Your task to perform on an android device: Go to network settings Image 0: 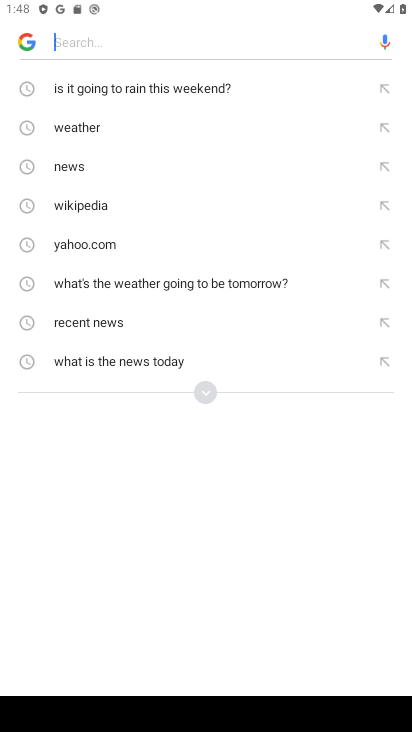
Step 0: press home button
Your task to perform on an android device: Go to network settings Image 1: 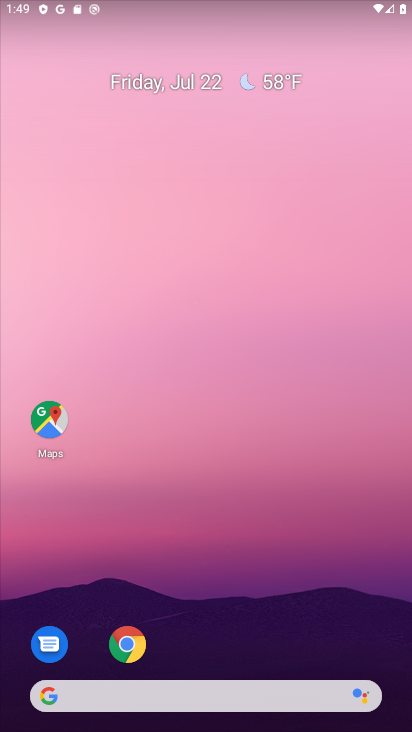
Step 1: drag from (280, 631) to (409, 45)
Your task to perform on an android device: Go to network settings Image 2: 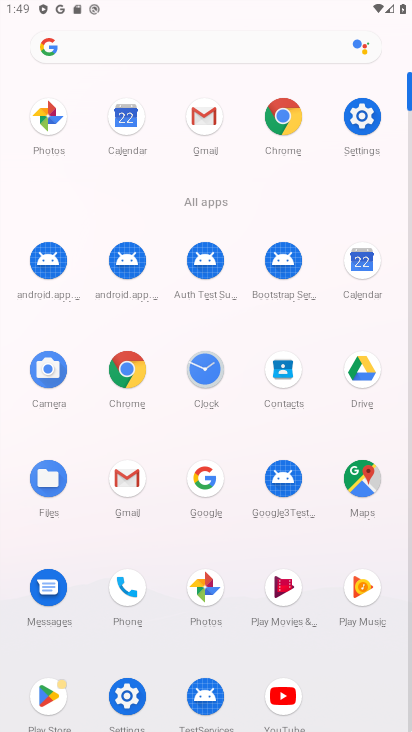
Step 2: click (363, 153)
Your task to perform on an android device: Go to network settings Image 3: 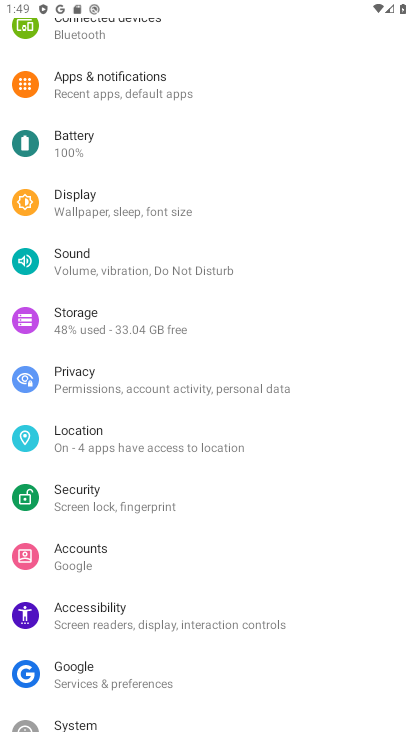
Step 3: drag from (241, 113) to (318, 496)
Your task to perform on an android device: Go to network settings Image 4: 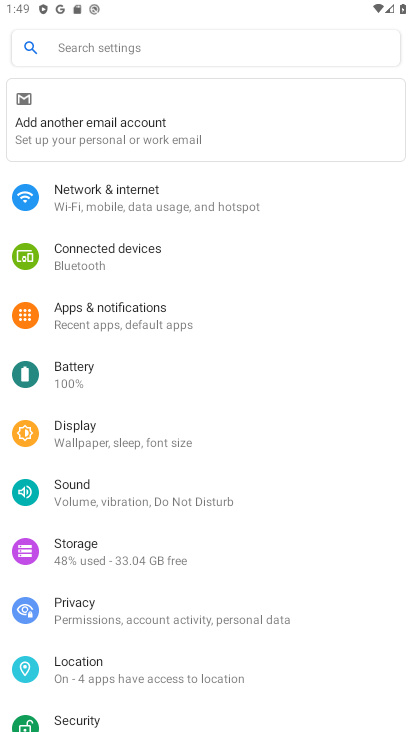
Step 4: click (123, 201)
Your task to perform on an android device: Go to network settings Image 5: 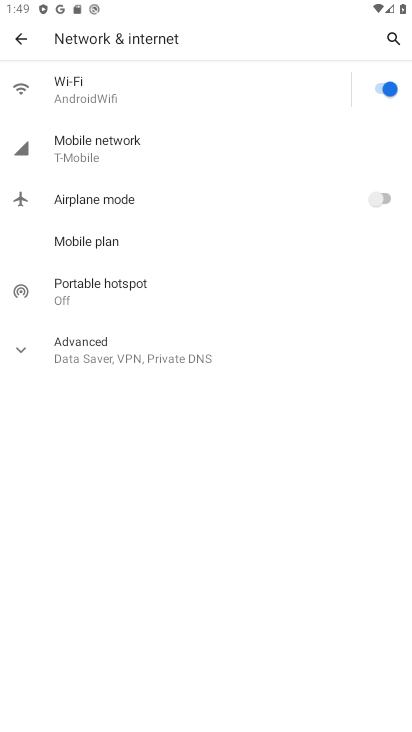
Step 5: task complete